Your task to perform on an android device: turn pop-ups on in chrome Image 0: 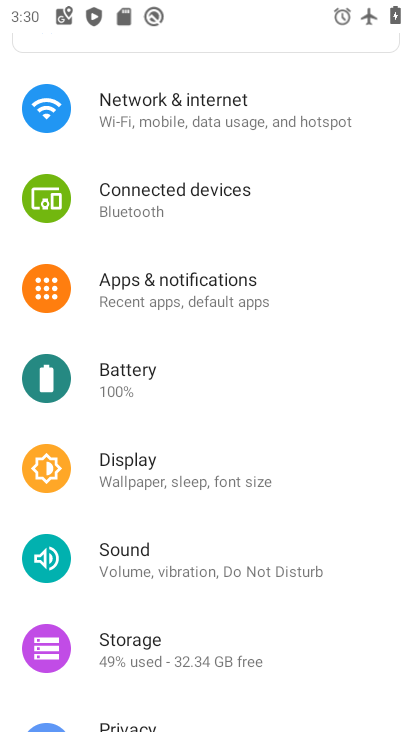
Step 0: press home button
Your task to perform on an android device: turn pop-ups on in chrome Image 1: 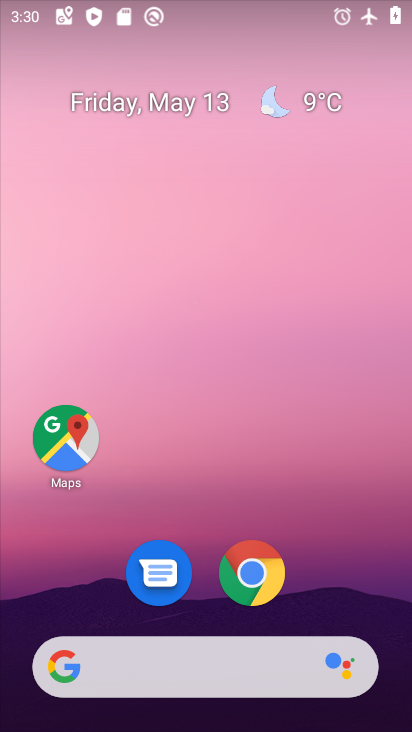
Step 1: click (251, 573)
Your task to perform on an android device: turn pop-ups on in chrome Image 2: 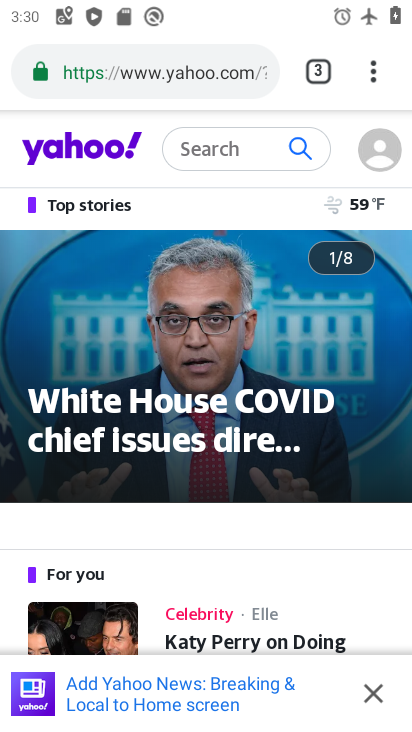
Step 2: click (374, 72)
Your task to perform on an android device: turn pop-ups on in chrome Image 3: 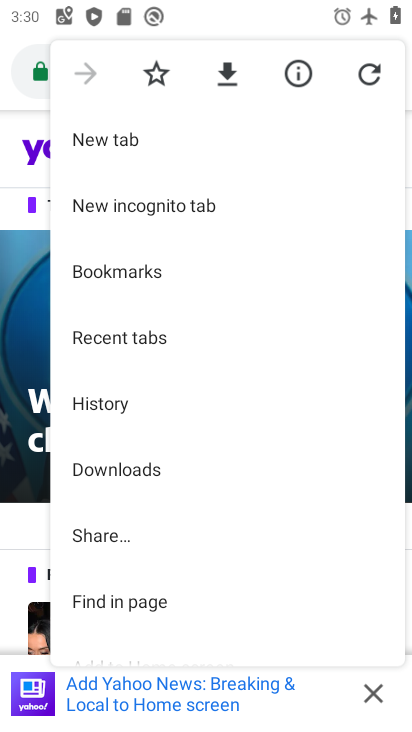
Step 3: drag from (167, 483) to (231, 372)
Your task to perform on an android device: turn pop-ups on in chrome Image 4: 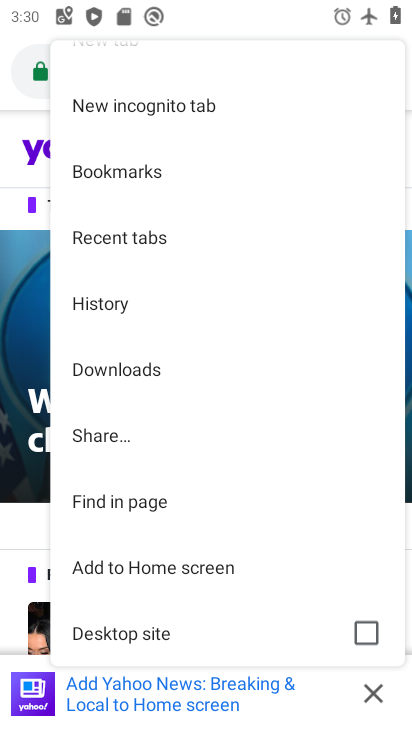
Step 4: drag from (205, 482) to (255, 348)
Your task to perform on an android device: turn pop-ups on in chrome Image 5: 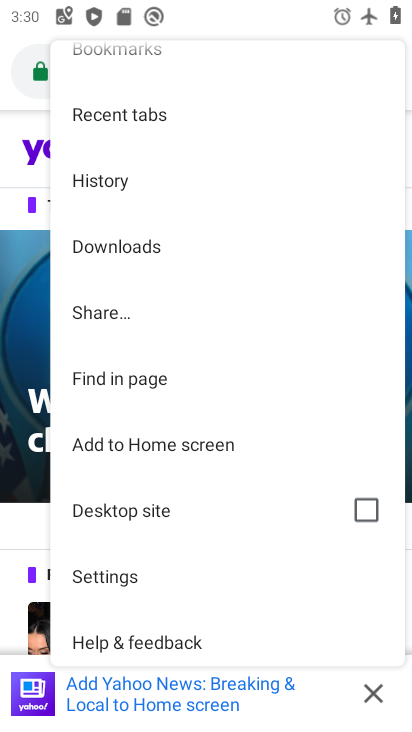
Step 5: click (124, 581)
Your task to perform on an android device: turn pop-ups on in chrome Image 6: 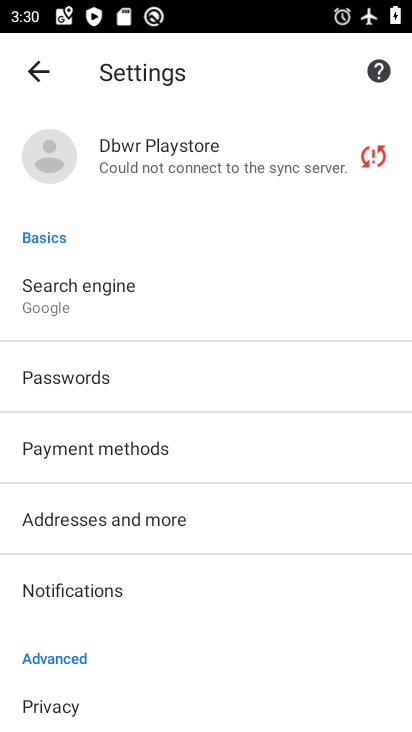
Step 6: drag from (129, 608) to (190, 486)
Your task to perform on an android device: turn pop-ups on in chrome Image 7: 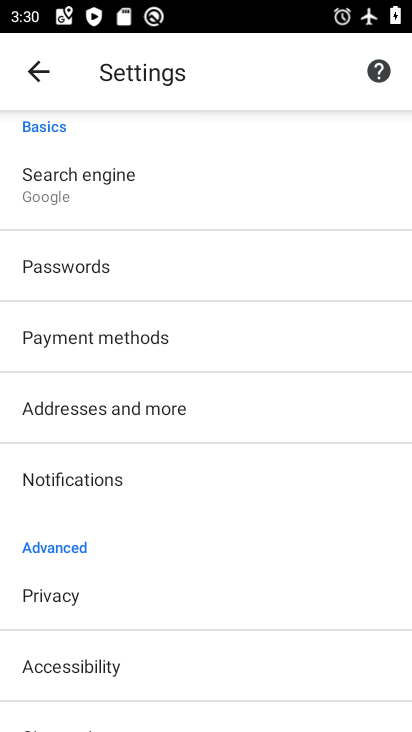
Step 7: drag from (105, 639) to (199, 515)
Your task to perform on an android device: turn pop-ups on in chrome Image 8: 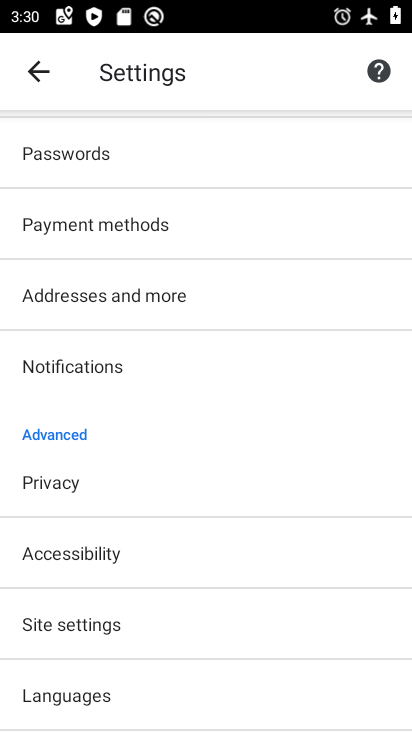
Step 8: click (92, 627)
Your task to perform on an android device: turn pop-ups on in chrome Image 9: 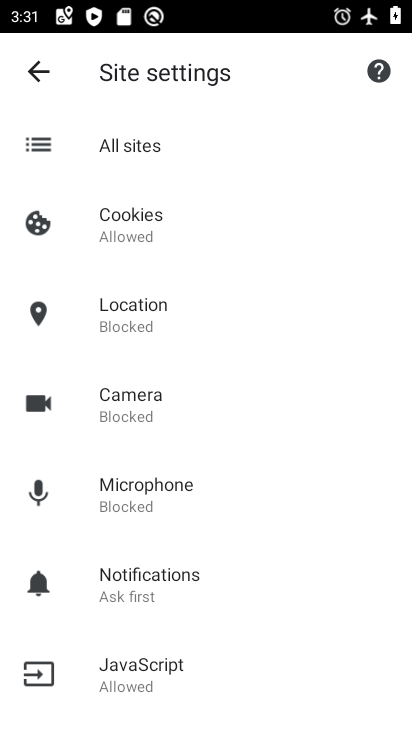
Step 9: drag from (153, 604) to (203, 440)
Your task to perform on an android device: turn pop-ups on in chrome Image 10: 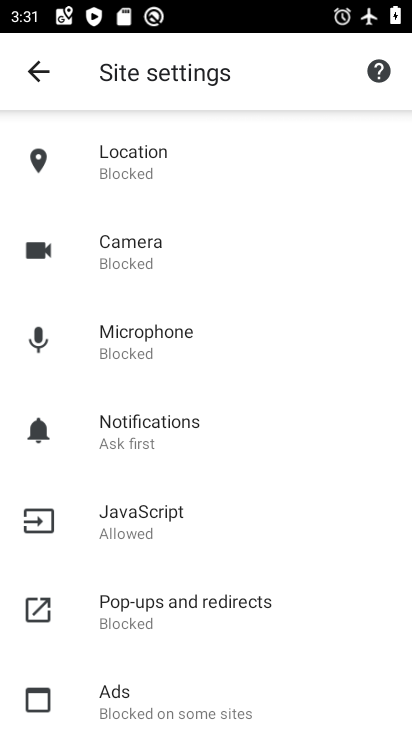
Step 10: click (131, 601)
Your task to perform on an android device: turn pop-ups on in chrome Image 11: 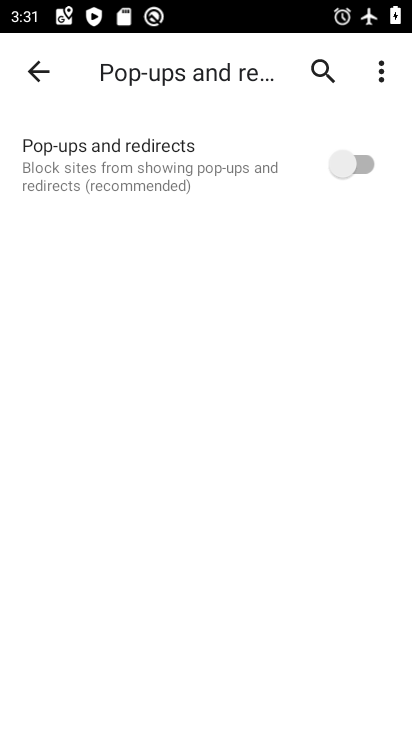
Step 11: click (338, 170)
Your task to perform on an android device: turn pop-ups on in chrome Image 12: 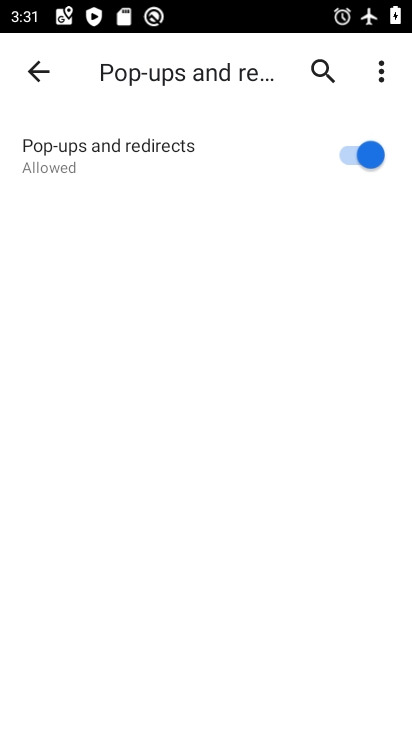
Step 12: task complete